Your task to perform on an android device: change alarm snooze length Image 0: 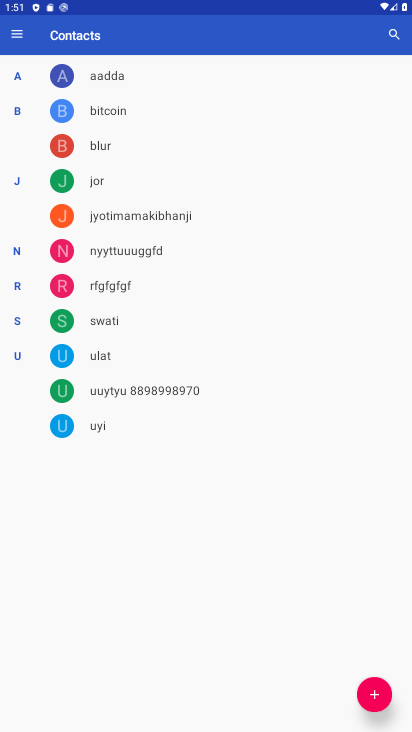
Step 0: press home button
Your task to perform on an android device: change alarm snooze length Image 1: 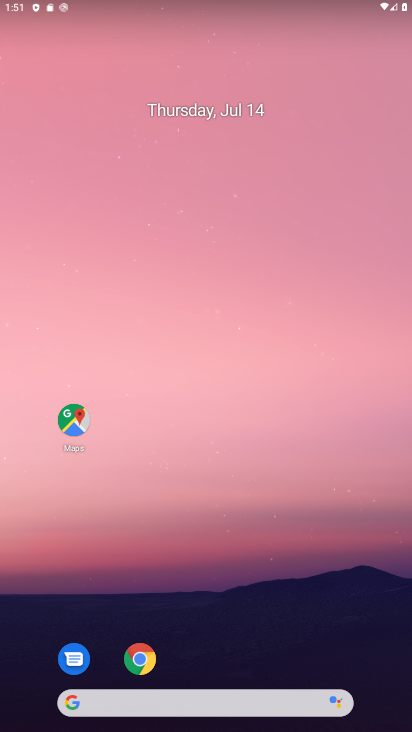
Step 1: drag from (203, 710) to (248, 219)
Your task to perform on an android device: change alarm snooze length Image 2: 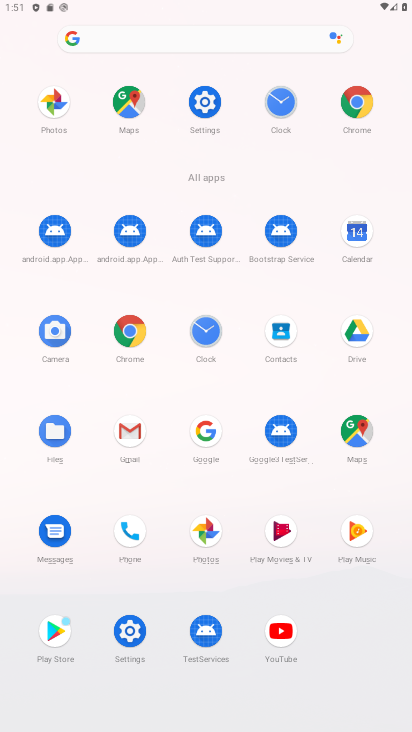
Step 2: click (202, 328)
Your task to perform on an android device: change alarm snooze length Image 3: 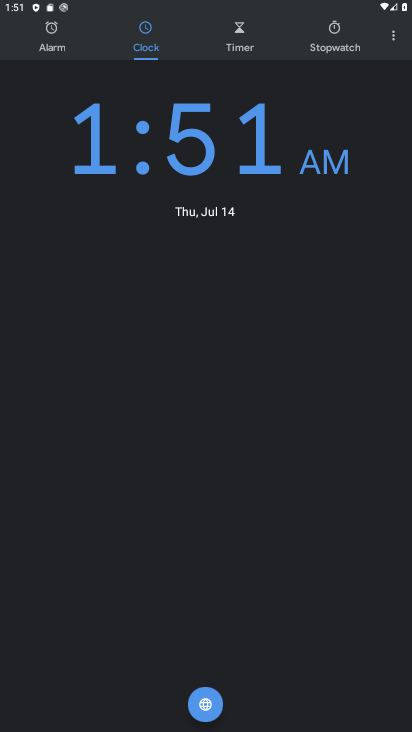
Step 3: click (390, 25)
Your task to perform on an android device: change alarm snooze length Image 4: 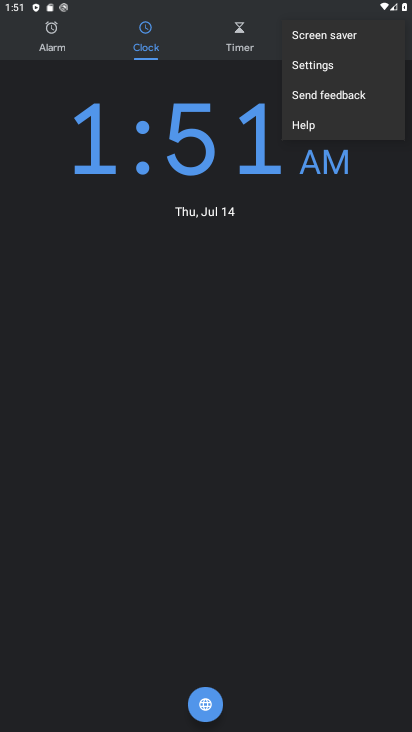
Step 4: click (326, 70)
Your task to perform on an android device: change alarm snooze length Image 5: 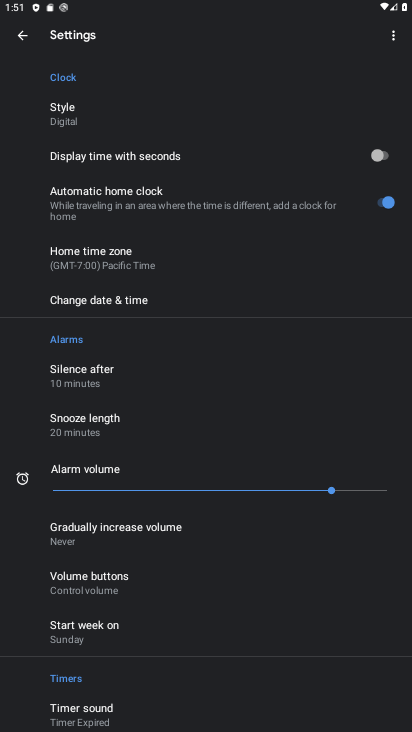
Step 5: click (106, 425)
Your task to perform on an android device: change alarm snooze length Image 6: 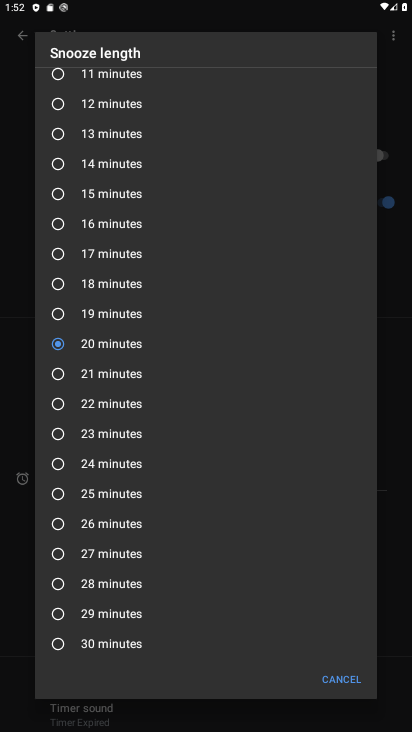
Step 6: click (78, 493)
Your task to perform on an android device: change alarm snooze length Image 7: 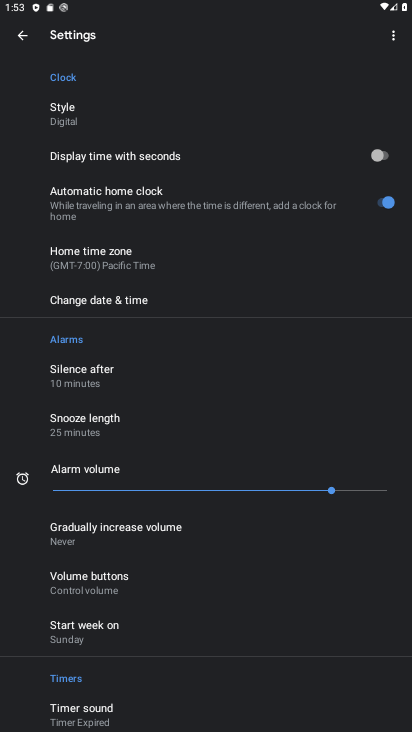
Step 7: task complete